Your task to perform on an android device: Go to Yahoo.com Image 0: 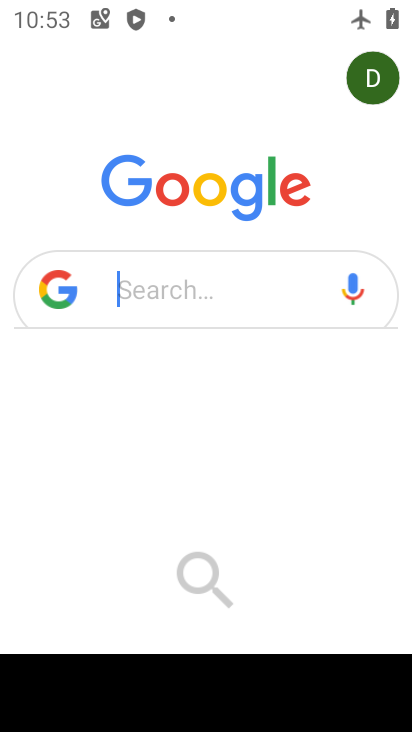
Step 0: press home button
Your task to perform on an android device: Go to Yahoo.com Image 1: 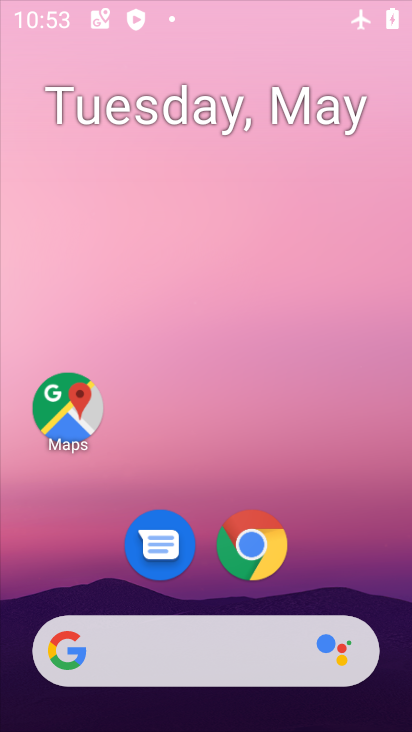
Step 1: drag from (231, 605) to (279, 119)
Your task to perform on an android device: Go to Yahoo.com Image 2: 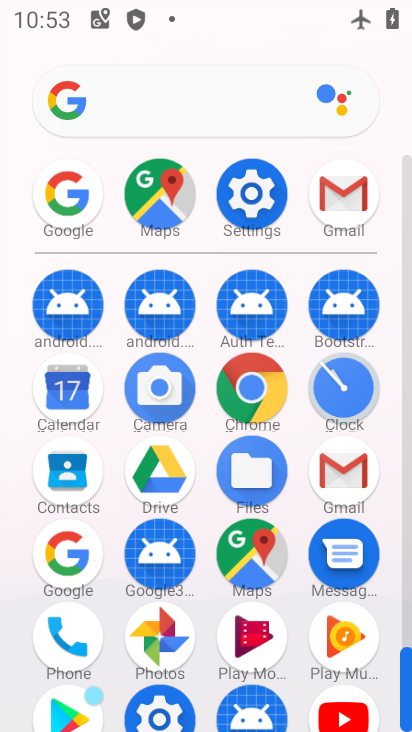
Step 2: drag from (233, 549) to (268, 175)
Your task to perform on an android device: Go to Yahoo.com Image 3: 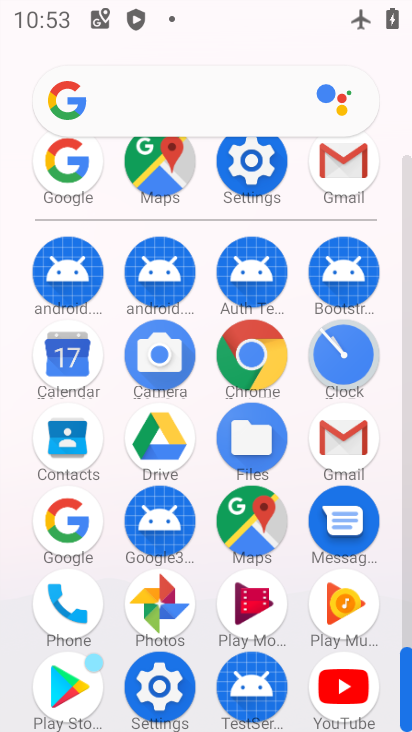
Step 3: click (261, 352)
Your task to perform on an android device: Go to Yahoo.com Image 4: 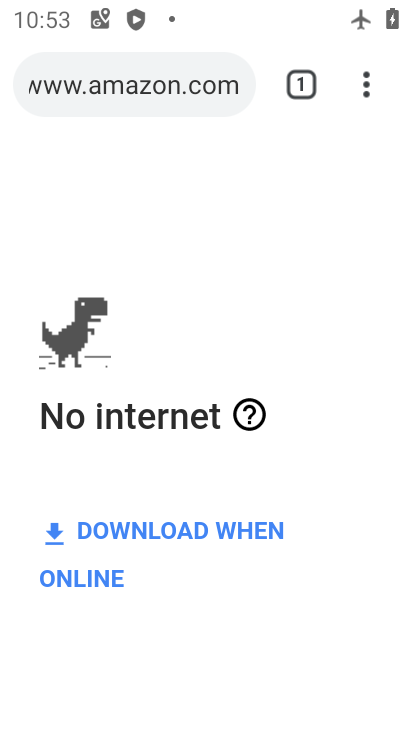
Step 4: click (202, 81)
Your task to perform on an android device: Go to Yahoo.com Image 5: 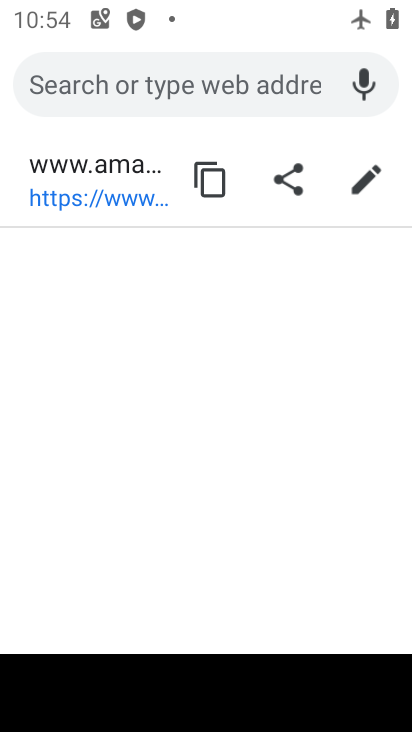
Step 5: type "yahoo.com"
Your task to perform on an android device: Go to Yahoo.com Image 6: 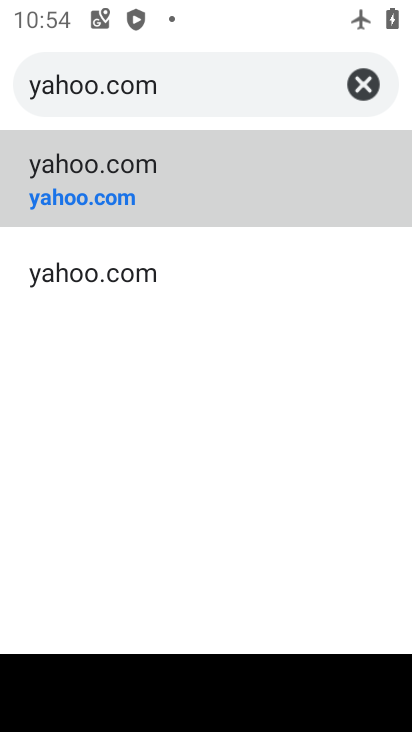
Step 6: click (224, 183)
Your task to perform on an android device: Go to Yahoo.com Image 7: 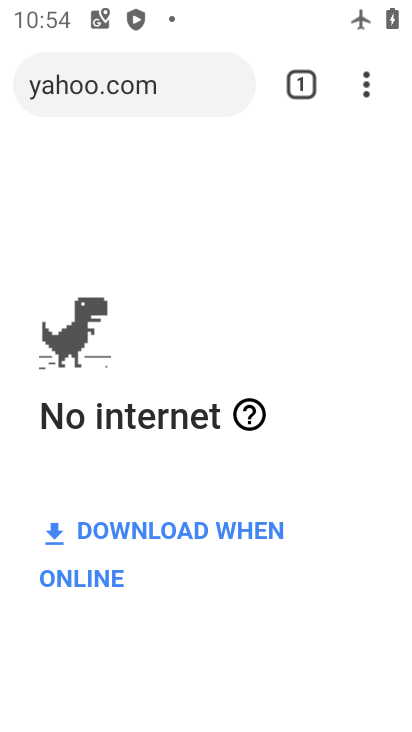
Step 7: task complete